Your task to perform on an android device: Open accessibility settings Image 0: 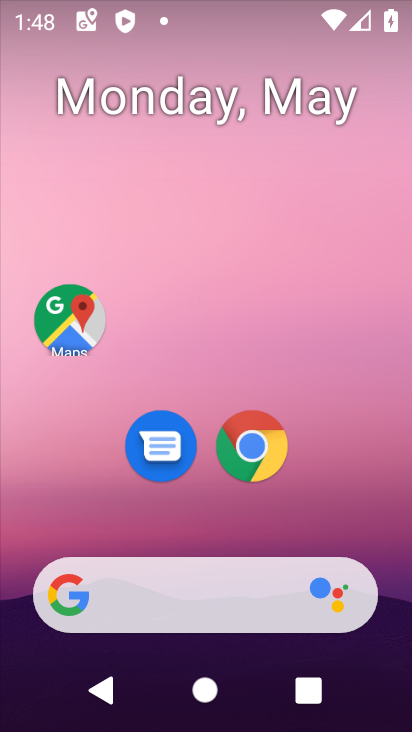
Step 0: drag from (200, 576) to (257, 7)
Your task to perform on an android device: Open accessibility settings Image 1: 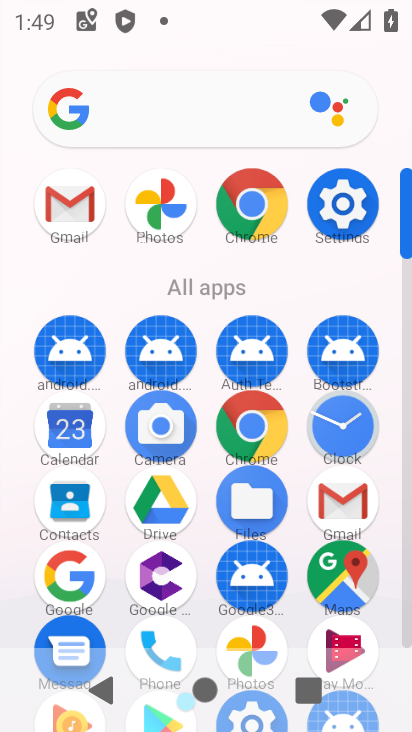
Step 1: click (341, 208)
Your task to perform on an android device: Open accessibility settings Image 2: 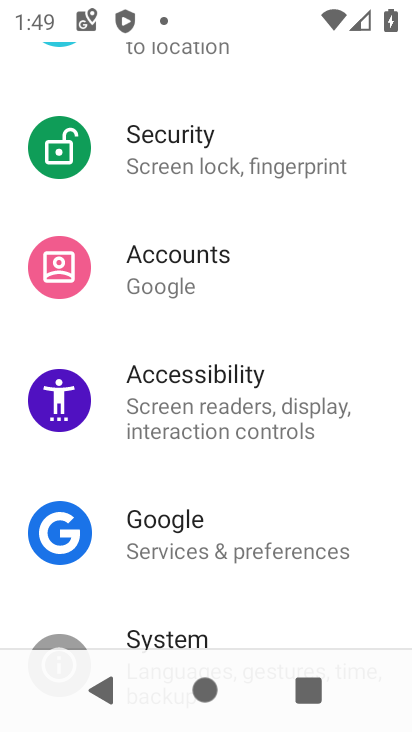
Step 2: click (216, 403)
Your task to perform on an android device: Open accessibility settings Image 3: 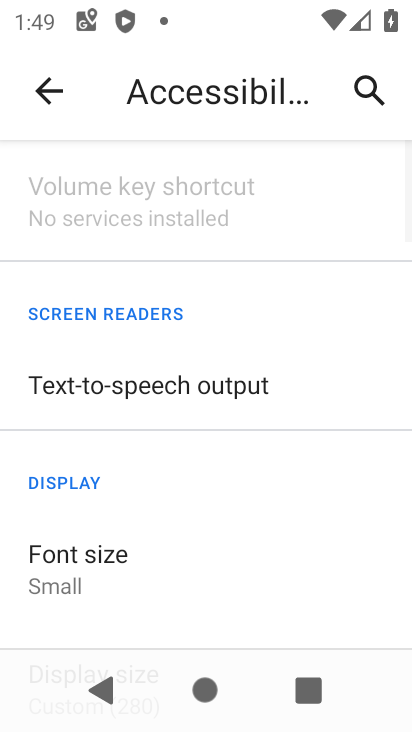
Step 3: task complete